Your task to perform on an android device: Open battery settings Image 0: 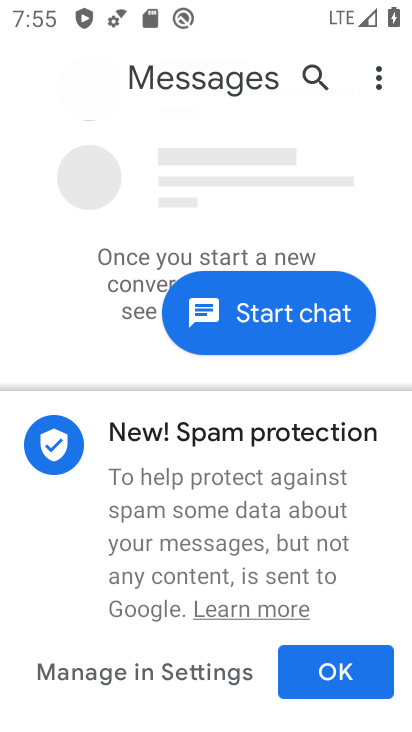
Step 0: press back button
Your task to perform on an android device: Open battery settings Image 1: 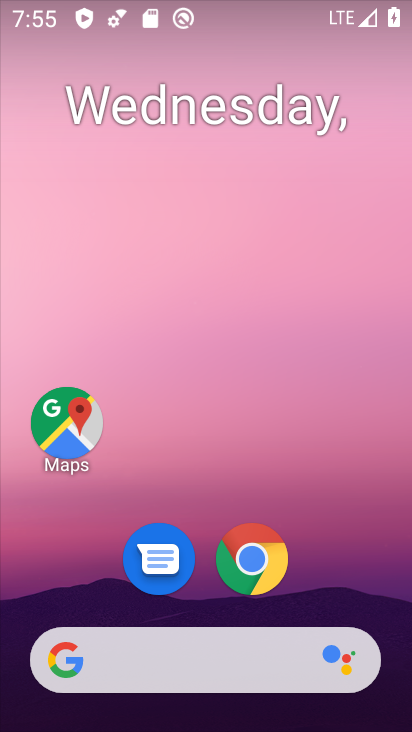
Step 1: drag from (225, 575) to (355, 62)
Your task to perform on an android device: Open battery settings Image 2: 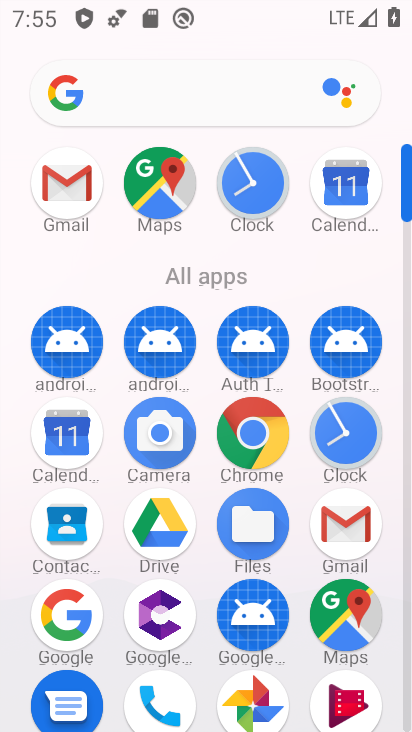
Step 2: drag from (179, 588) to (222, 118)
Your task to perform on an android device: Open battery settings Image 3: 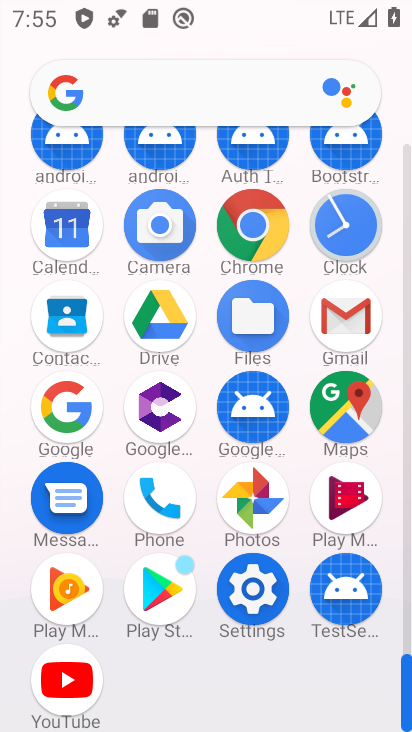
Step 3: click (261, 604)
Your task to perform on an android device: Open battery settings Image 4: 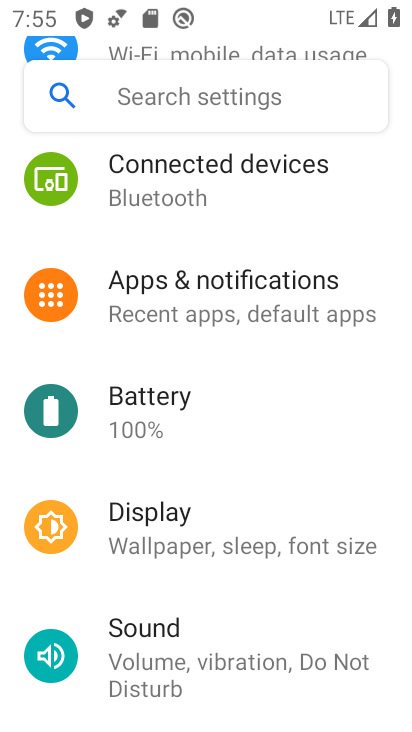
Step 4: click (153, 374)
Your task to perform on an android device: Open battery settings Image 5: 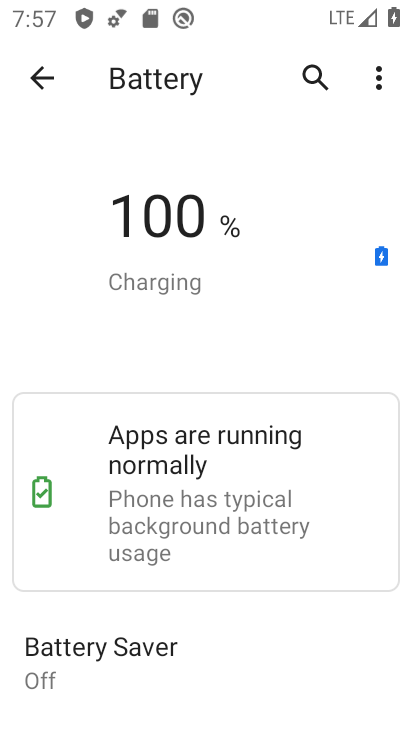
Step 5: task complete